Your task to perform on an android device: Open settings on Google Maps Image 0: 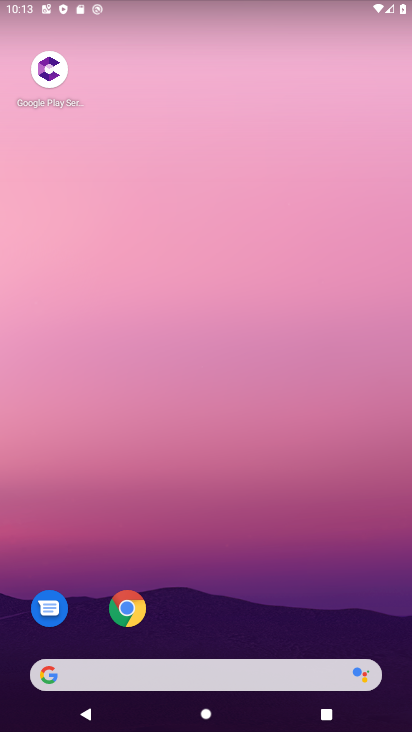
Step 0: drag from (271, 616) to (387, 33)
Your task to perform on an android device: Open settings on Google Maps Image 1: 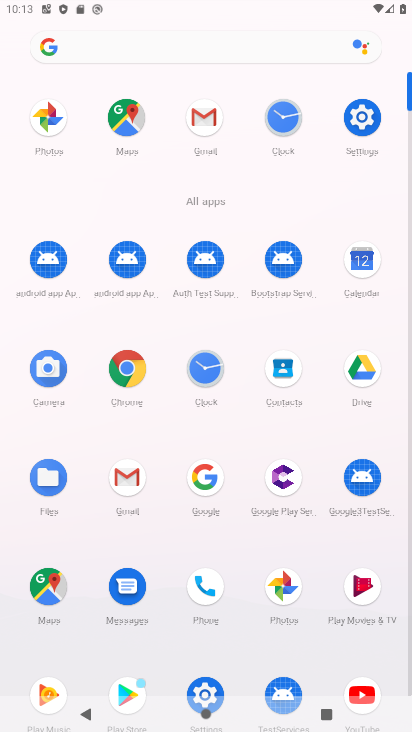
Step 1: click (48, 596)
Your task to perform on an android device: Open settings on Google Maps Image 2: 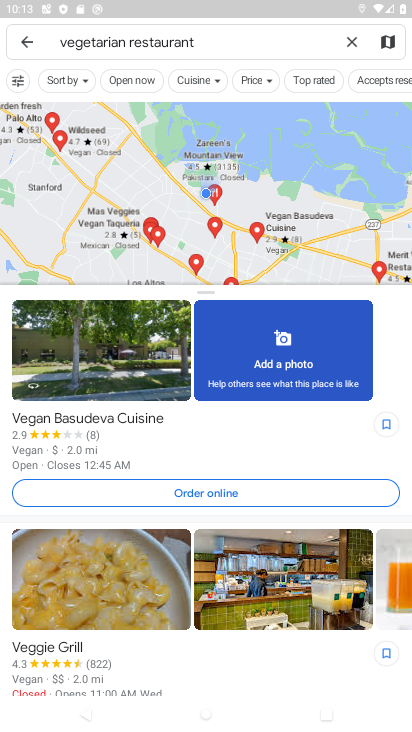
Step 2: click (31, 47)
Your task to perform on an android device: Open settings on Google Maps Image 3: 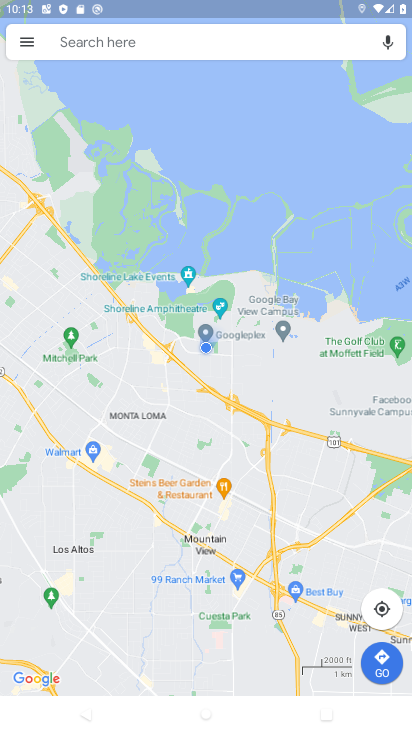
Step 3: click (31, 47)
Your task to perform on an android device: Open settings on Google Maps Image 4: 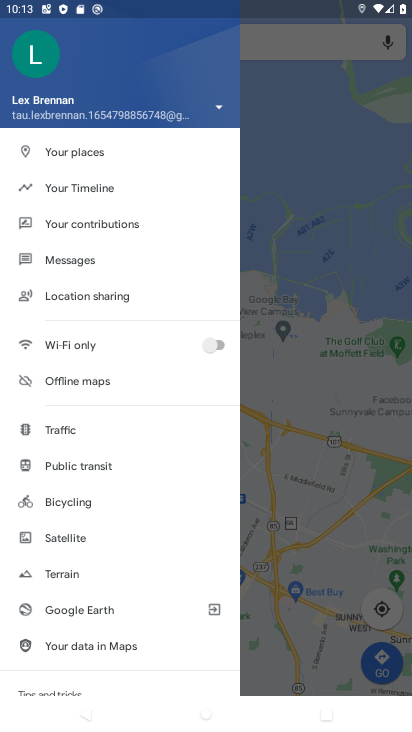
Step 4: drag from (127, 654) to (129, 320)
Your task to perform on an android device: Open settings on Google Maps Image 5: 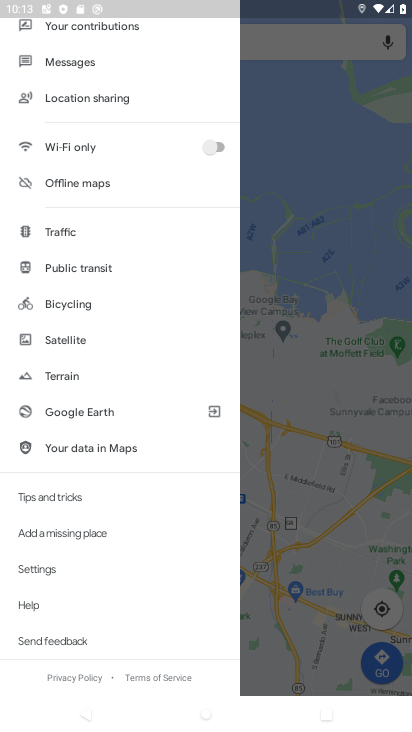
Step 5: click (42, 573)
Your task to perform on an android device: Open settings on Google Maps Image 6: 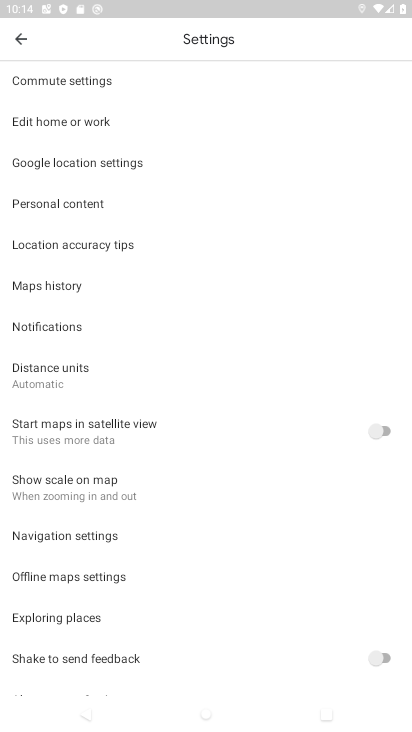
Step 6: task complete